Your task to perform on an android device: Go to CNN.com Image 0: 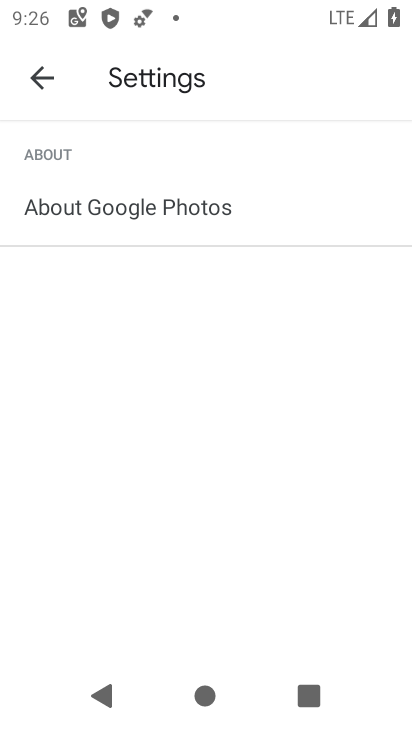
Step 0: press home button
Your task to perform on an android device: Go to CNN.com Image 1: 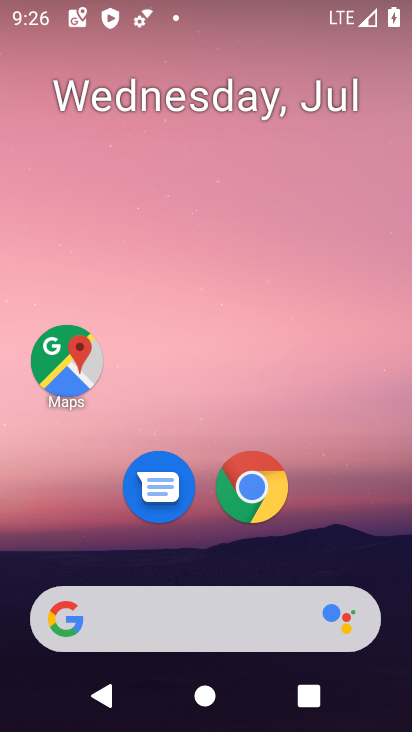
Step 1: click (267, 521)
Your task to perform on an android device: Go to CNN.com Image 2: 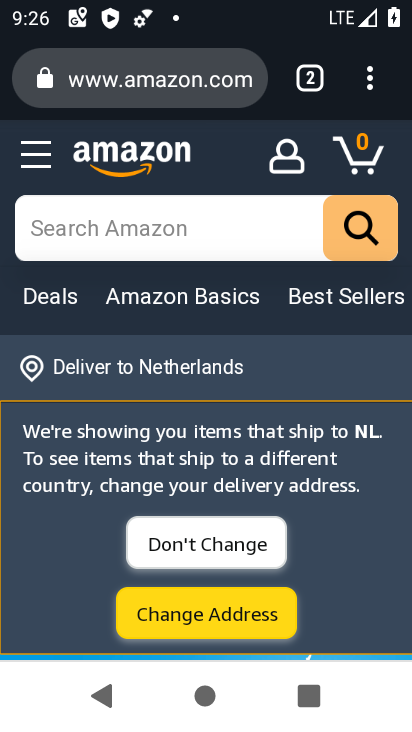
Step 2: click (310, 85)
Your task to perform on an android device: Go to CNN.com Image 3: 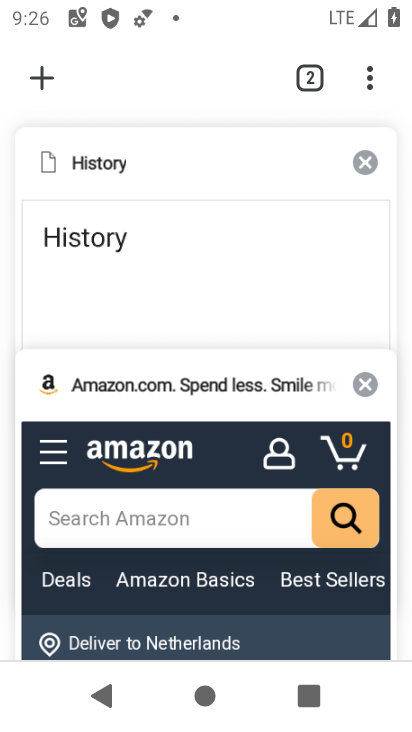
Step 3: click (36, 60)
Your task to perform on an android device: Go to CNN.com Image 4: 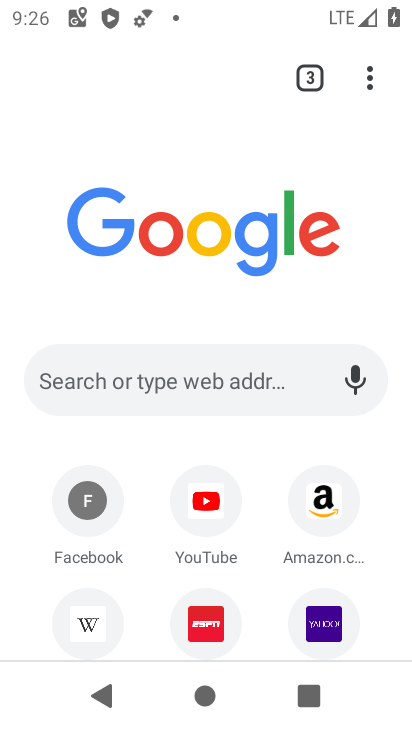
Step 4: click (230, 399)
Your task to perform on an android device: Go to CNN.com Image 5: 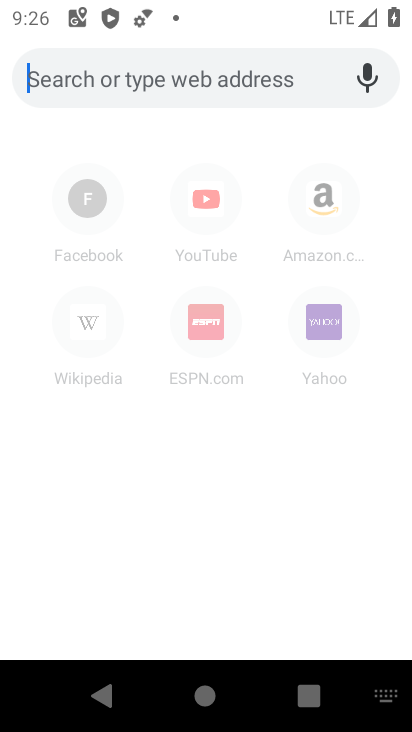
Step 5: type "cnn"
Your task to perform on an android device: Go to CNN.com Image 6: 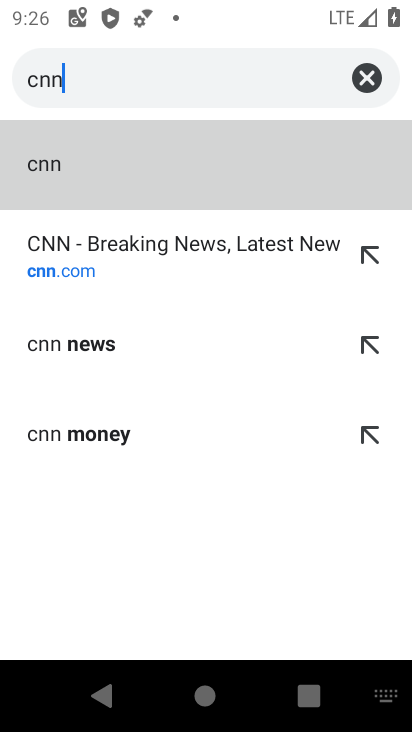
Step 6: click (80, 253)
Your task to perform on an android device: Go to CNN.com Image 7: 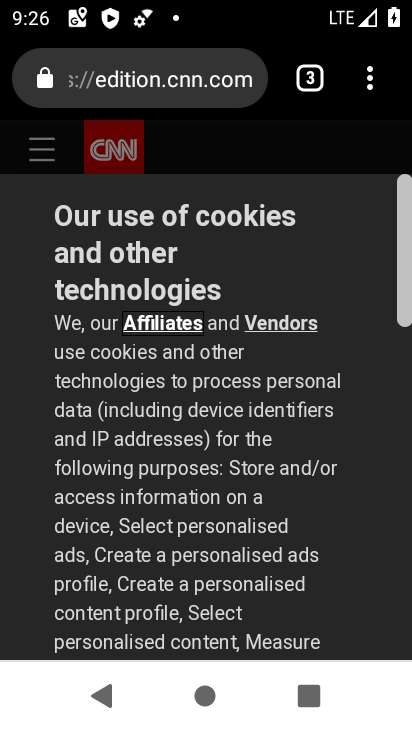
Step 7: task complete